Your task to perform on an android device: What is the recent news? Image 0: 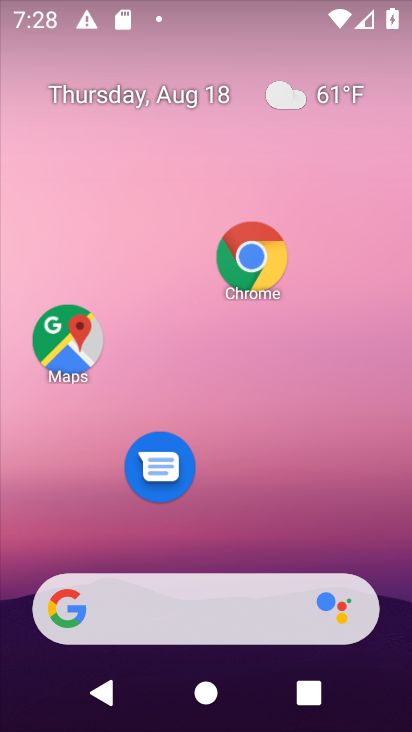
Step 0: drag from (361, 553) to (299, 68)
Your task to perform on an android device: What is the recent news? Image 1: 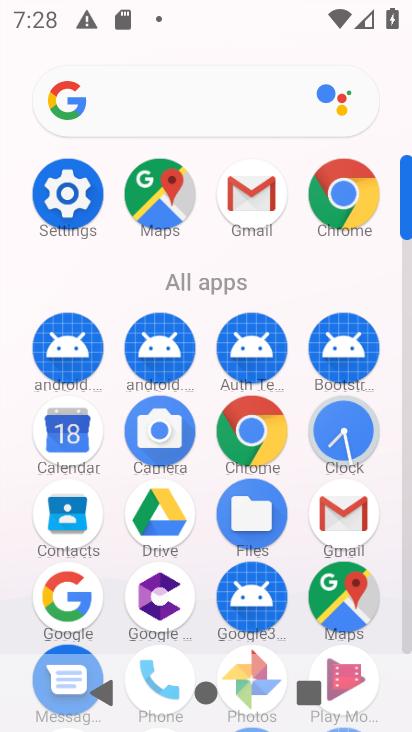
Step 1: task complete